Your task to perform on an android device: Open CNN.com Image 0: 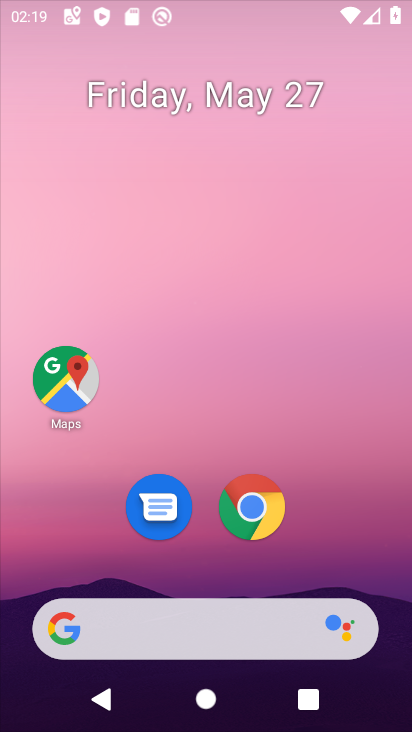
Step 0: drag from (191, 556) to (192, 117)
Your task to perform on an android device: Open CNN.com Image 1: 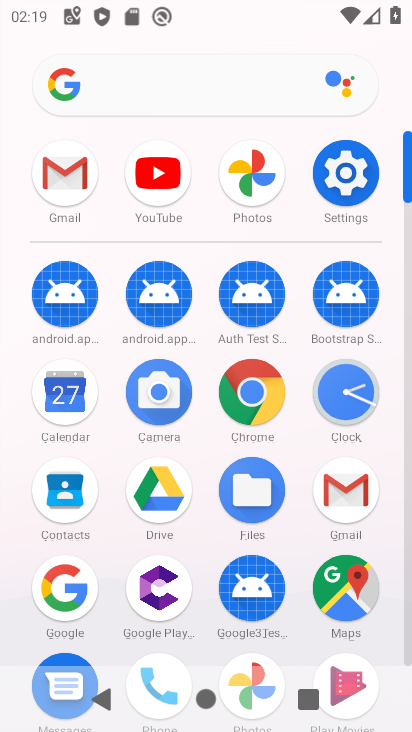
Step 1: click (173, 93)
Your task to perform on an android device: Open CNN.com Image 2: 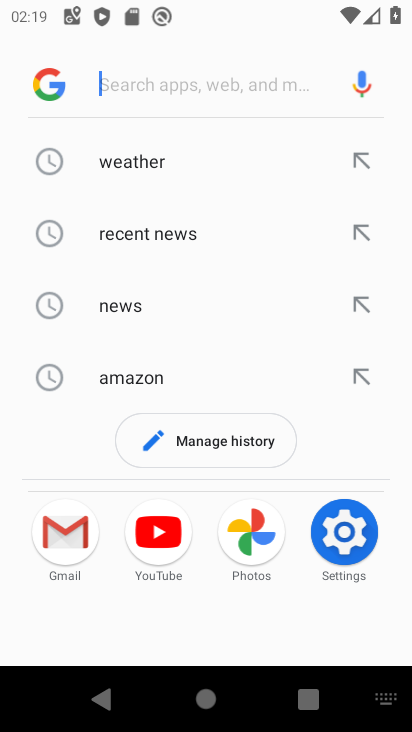
Step 2: type "CNN.com"
Your task to perform on an android device: Open CNN.com Image 3: 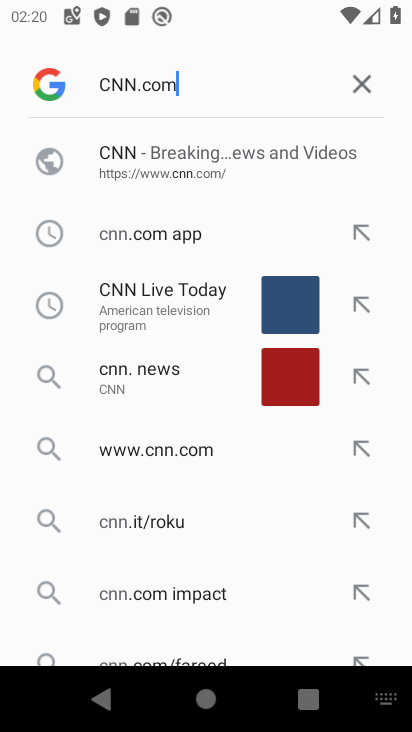
Step 3: type ""
Your task to perform on an android device: Open CNN.com Image 4: 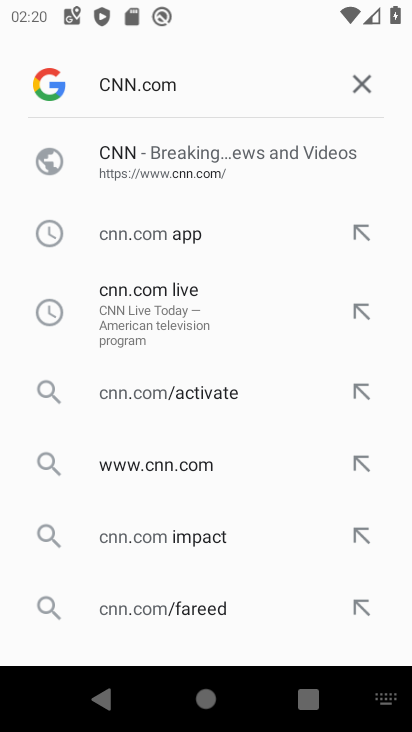
Step 4: click (97, 154)
Your task to perform on an android device: Open CNN.com Image 5: 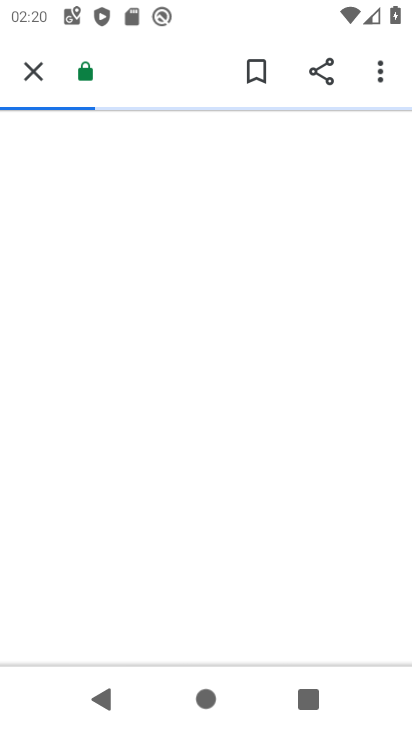
Step 5: task complete